Your task to perform on an android device: toggle show notifications on the lock screen Image 0: 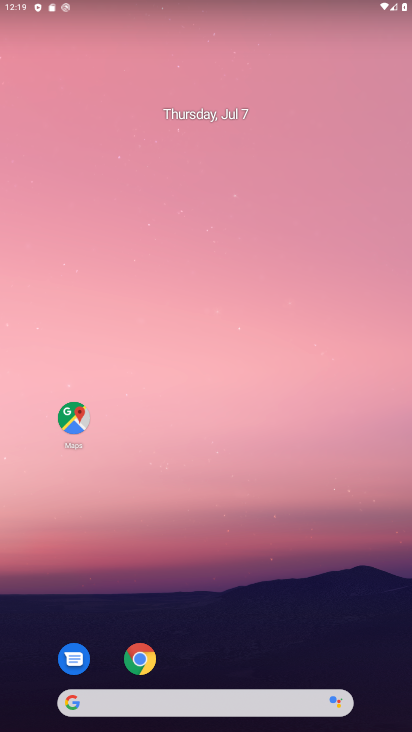
Step 0: drag from (241, 564) to (165, 170)
Your task to perform on an android device: toggle show notifications on the lock screen Image 1: 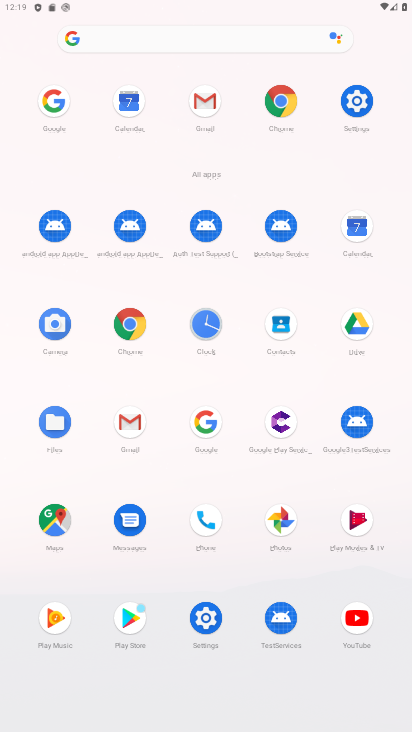
Step 1: click (357, 97)
Your task to perform on an android device: toggle show notifications on the lock screen Image 2: 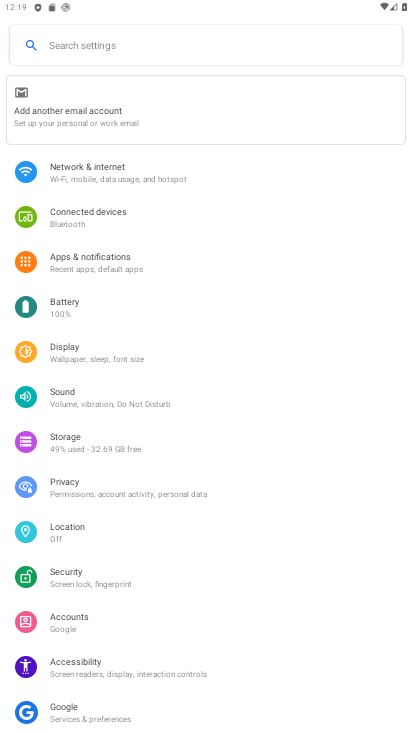
Step 2: click (102, 265)
Your task to perform on an android device: toggle show notifications on the lock screen Image 3: 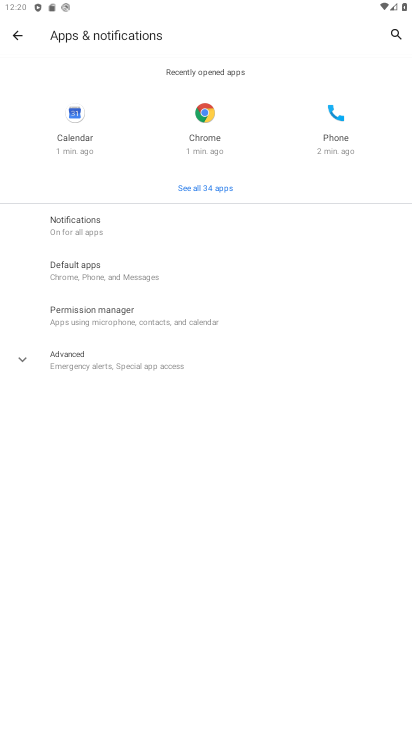
Step 3: click (82, 225)
Your task to perform on an android device: toggle show notifications on the lock screen Image 4: 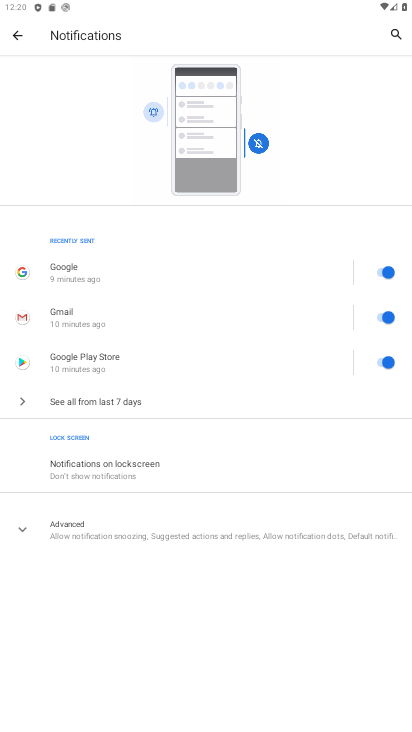
Step 4: click (117, 465)
Your task to perform on an android device: toggle show notifications on the lock screen Image 5: 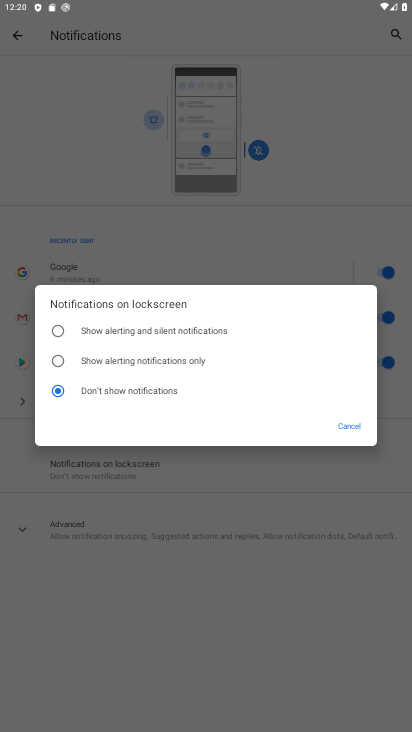
Step 5: click (56, 331)
Your task to perform on an android device: toggle show notifications on the lock screen Image 6: 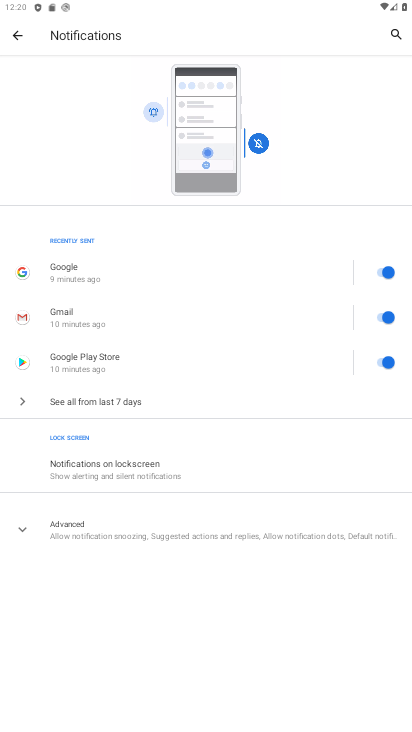
Step 6: task complete